Your task to perform on an android device: snooze an email in the gmail app Image 0: 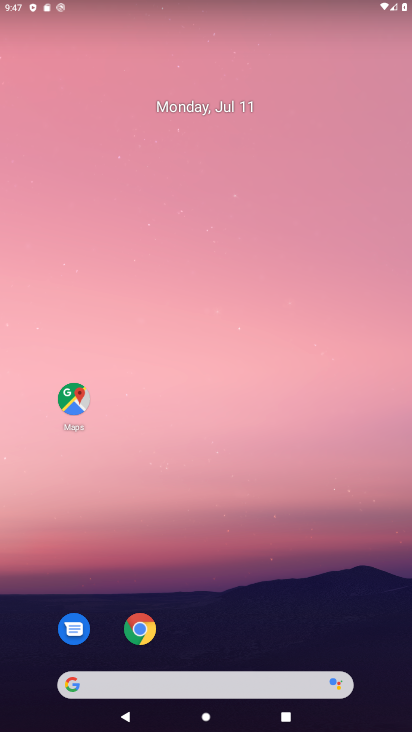
Step 0: drag from (288, 608) to (255, 274)
Your task to perform on an android device: snooze an email in the gmail app Image 1: 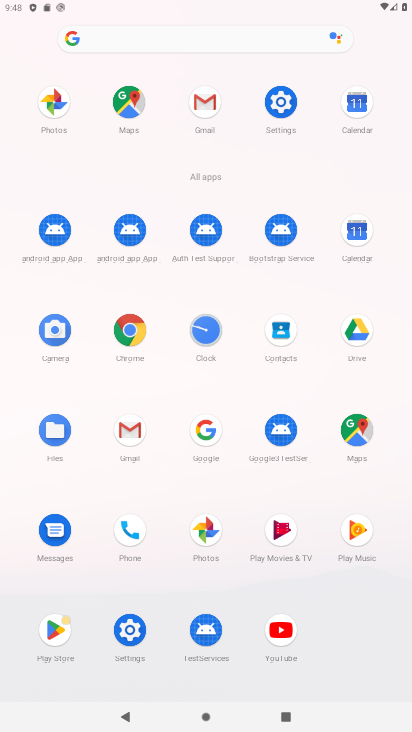
Step 1: click (194, 106)
Your task to perform on an android device: snooze an email in the gmail app Image 2: 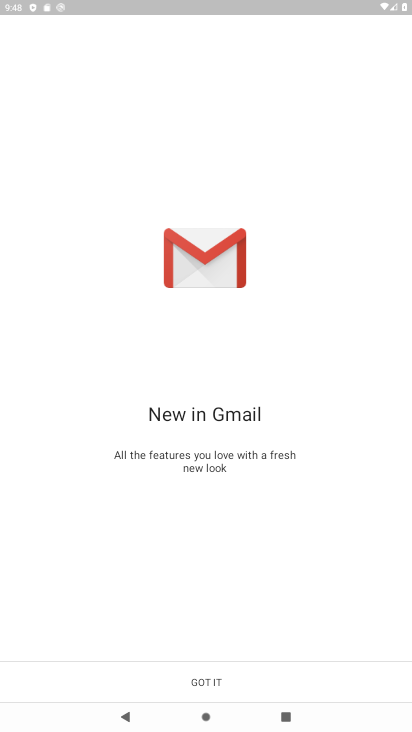
Step 2: click (232, 692)
Your task to perform on an android device: snooze an email in the gmail app Image 3: 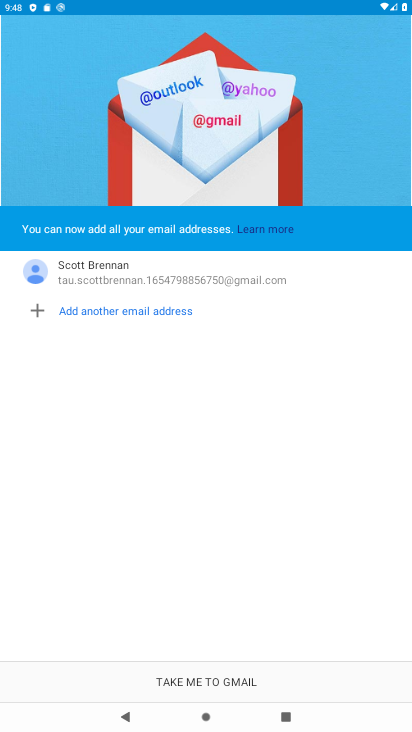
Step 3: click (232, 692)
Your task to perform on an android device: snooze an email in the gmail app Image 4: 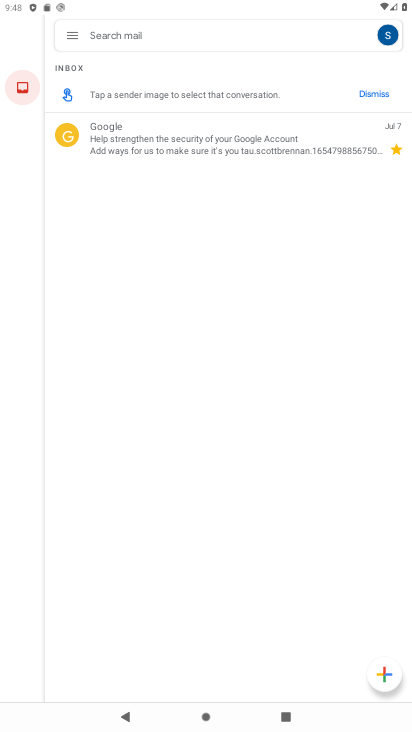
Step 4: click (185, 136)
Your task to perform on an android device: snooze an email in the gmail app Image 5: 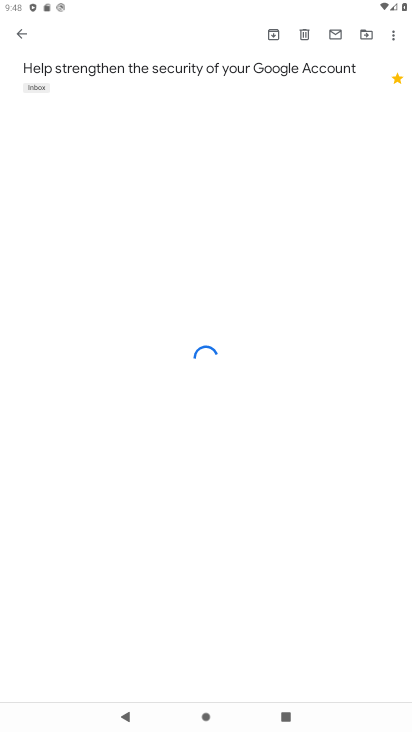
Step 5: click (390, 39)
Your task to perform on an android device: snooze an email in the gmail app Image 6: 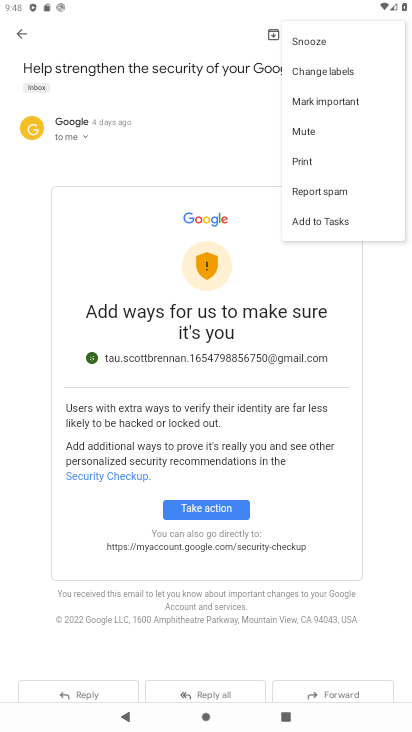
Step 6: click (308, 47)
Your task to perform on an android device: snooze an email in the gmail app Image 7: 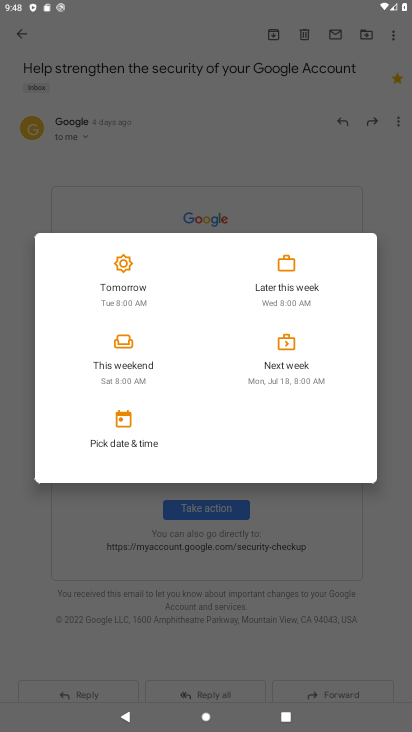
Step 7: click (85, 277)
Your task to perform on an android device: snooze an email in the gmail app Image 8: 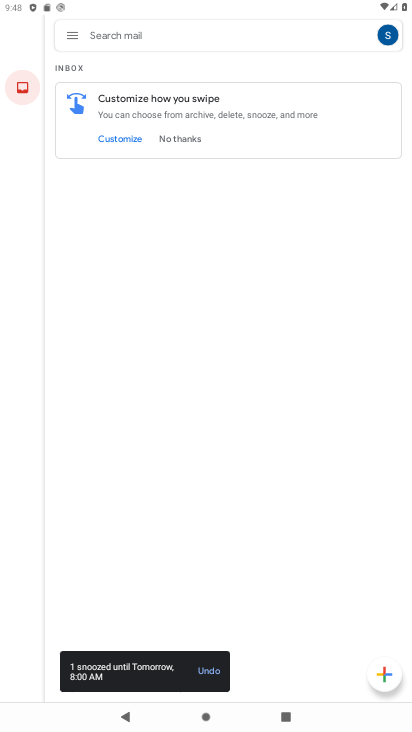
Step 8: task complete